Your task to perform on an android device: Search for vegetarian restaurants on Maps Image 0: 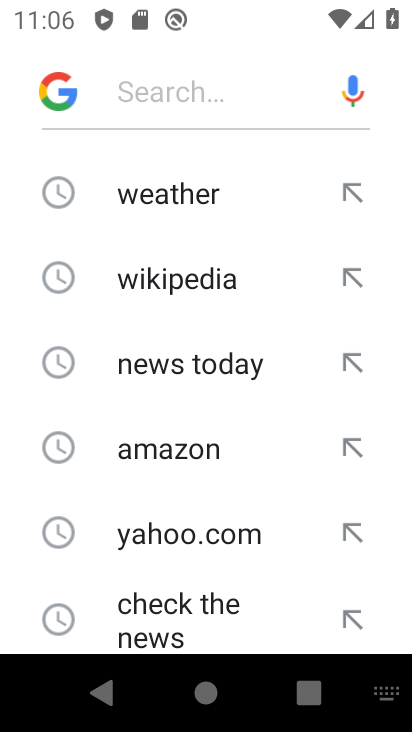
Step 0: press home button
Your task to perform on an android device: Search for vegetarian restaurants on Maps Image 1: 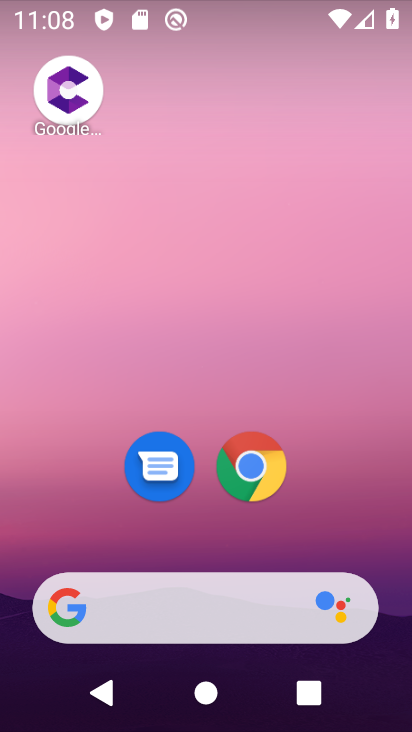
Step 1: drag from (387, 621) to (315, 8)
Your task to perform on an android device: Search for vegetarian restaurants on Maps Image 2: 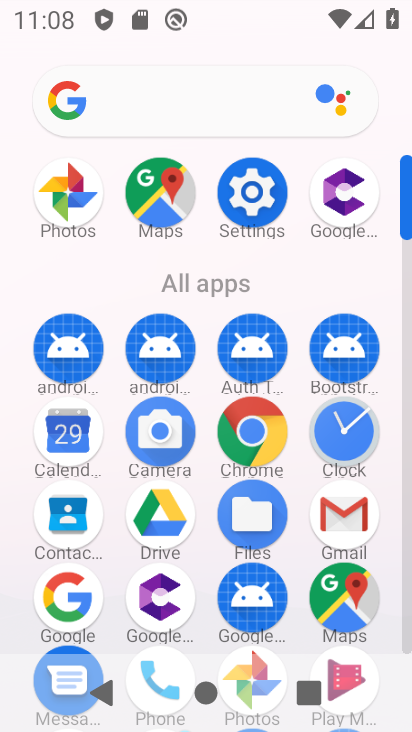
Step 2: click (330, 584)
Your task to perform on an android device: Search for vegetarian restaurants on Maps Image 3: 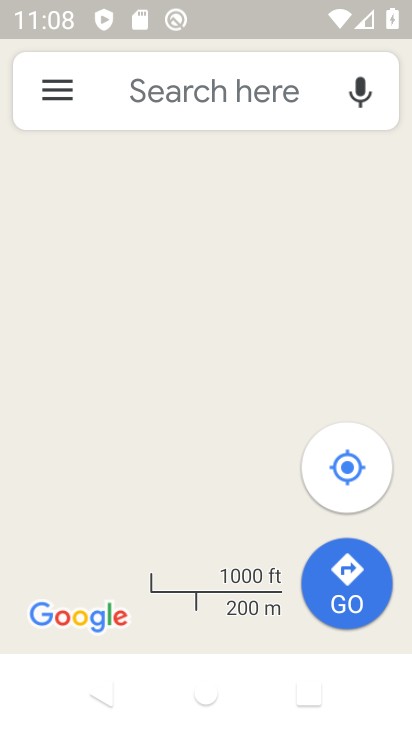
Step 3: click (190, 106)
Your task to perform on an android device: Search for vegetarian restaurants on Maps Image 4: 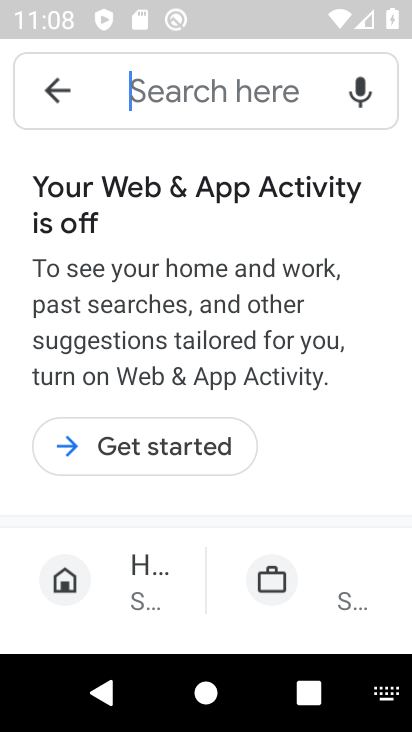
Step 4: click (150, 426)
Your task to perform on an android device: Search for vegetarian restaurants on Maps Image 5: 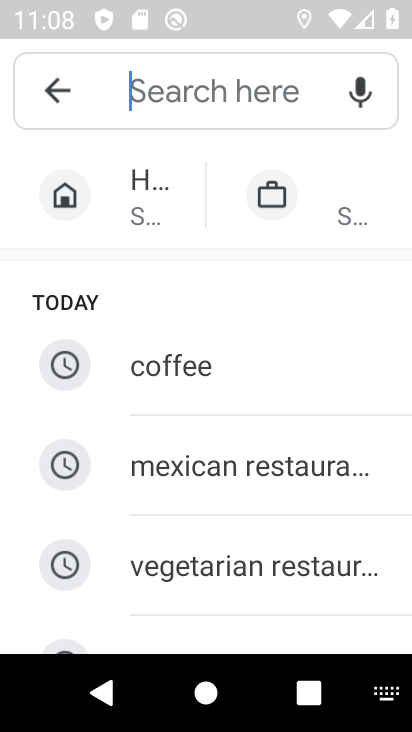
Step 5: click (224, 582)
Your task to perform on an android device: Search for vegetarian restaurants on Maps Image 6: 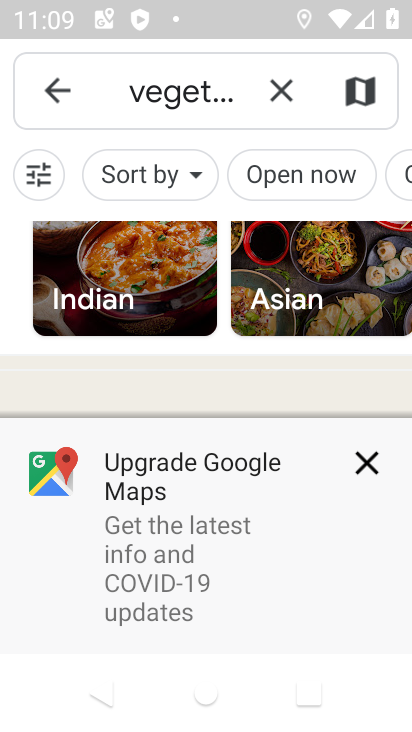
Step 6: task complete